Your task to perform on an android device: Go to location settings Image 0: 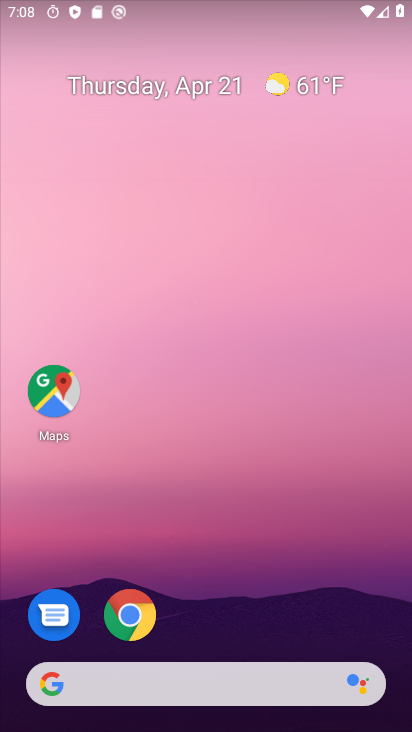
Step 0: drag from (235, 635) to (282, 214)
Your task to perform on an android device: Go to location settings Image 1: 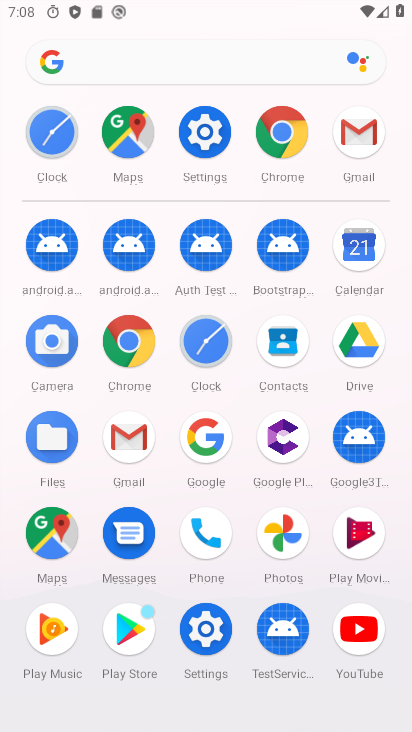
Step 1: click (206, 640)
Your task to perform on an android device: Go to location settings Image 2: 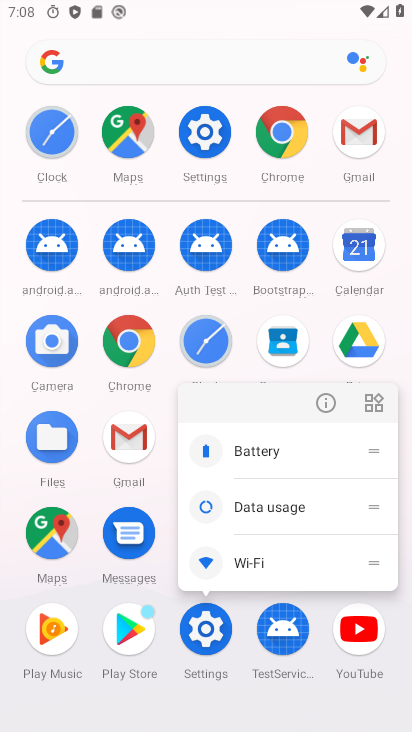
Step 2: click (325, 412)
Your task to perform on an android device: Go to location settings Image 3: 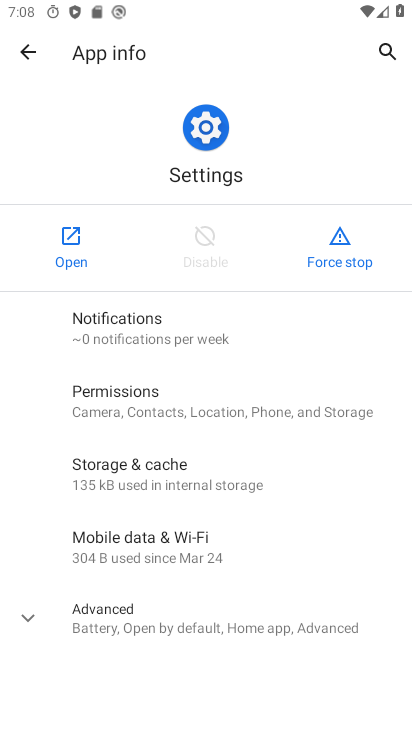
Step 3: click (65, 265)
Your task to perform on an android device: Go to location settings Image 4: 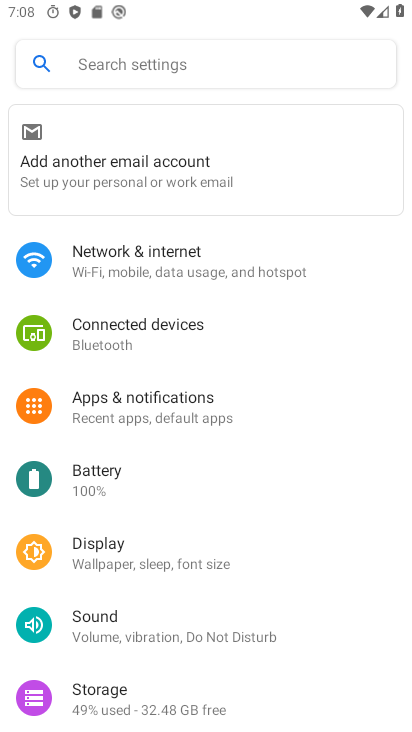
Step 4: drag from (207, 653) to (270, 200)
Your task to perform on an android device: Go to location settings Image 5: 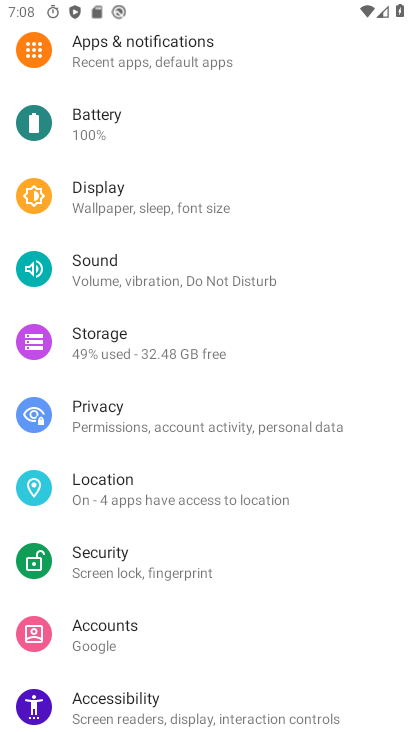
Step 5: click (190, 482)
Your task to perform on an android device: Go to location settings Image 6: 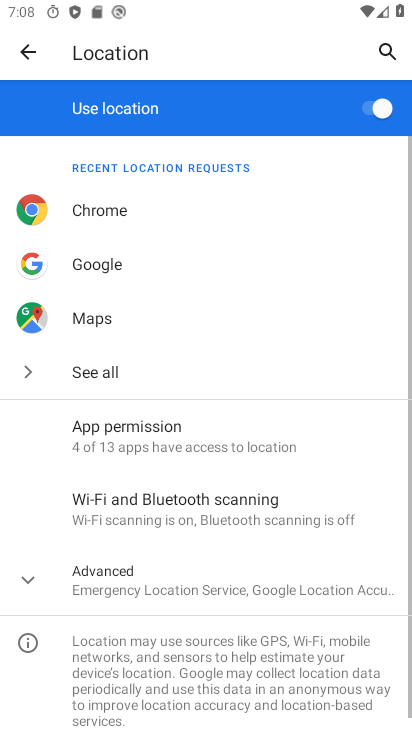
Step 6: task complete